Your task to perform on an android device: see sites visited before in the chrome app Image 0: 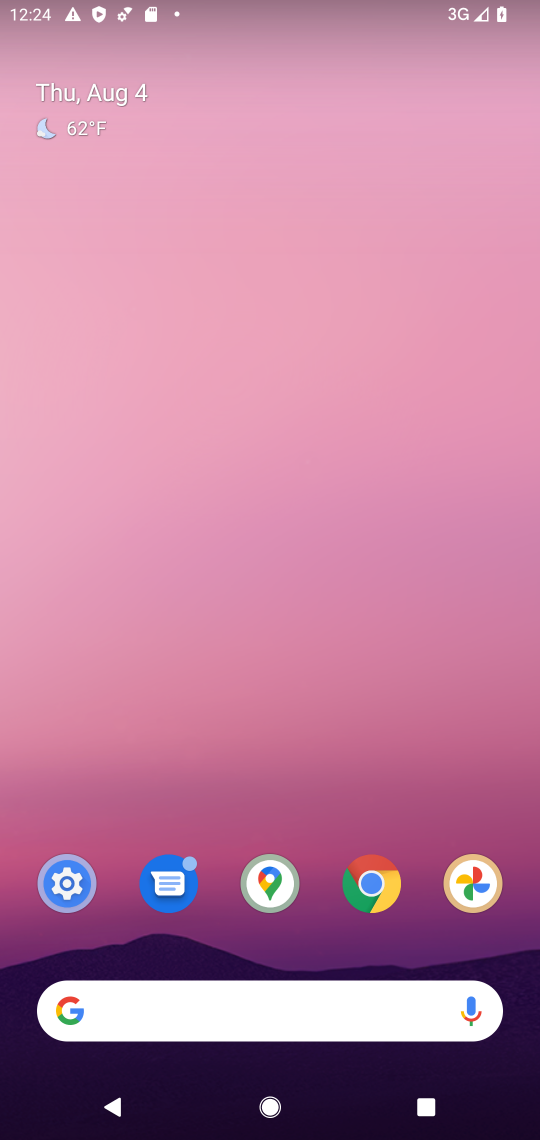
Step 0: drag from (326, 962) to (296, 310)
Your task to perform on an android device: see sites visited before in the chrome app Image 1: 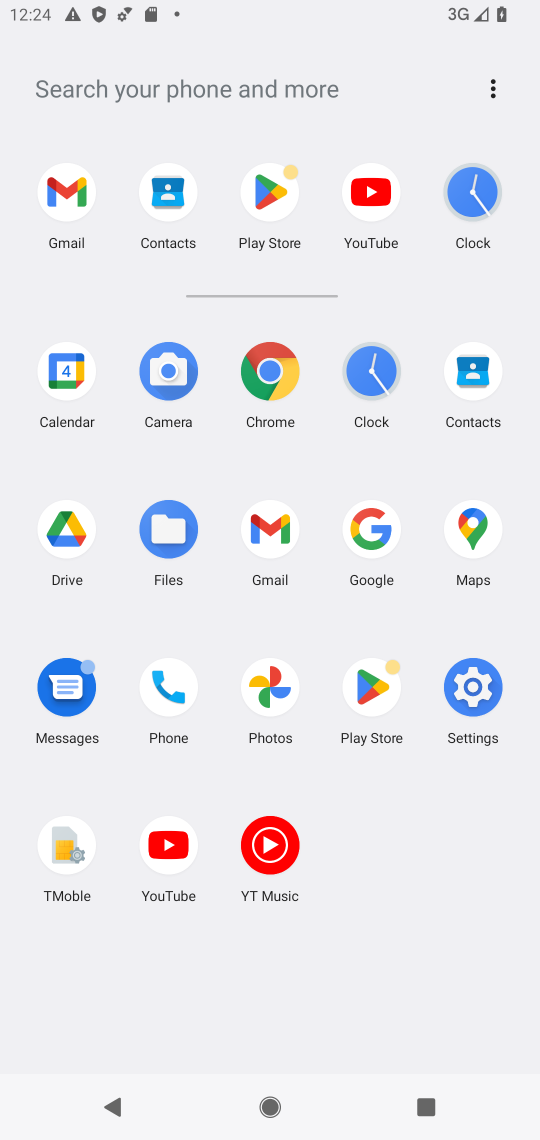
Step 1: click (280, 369)
Your task to perform on an android device: see sites visited before in the chrome app Image 2: 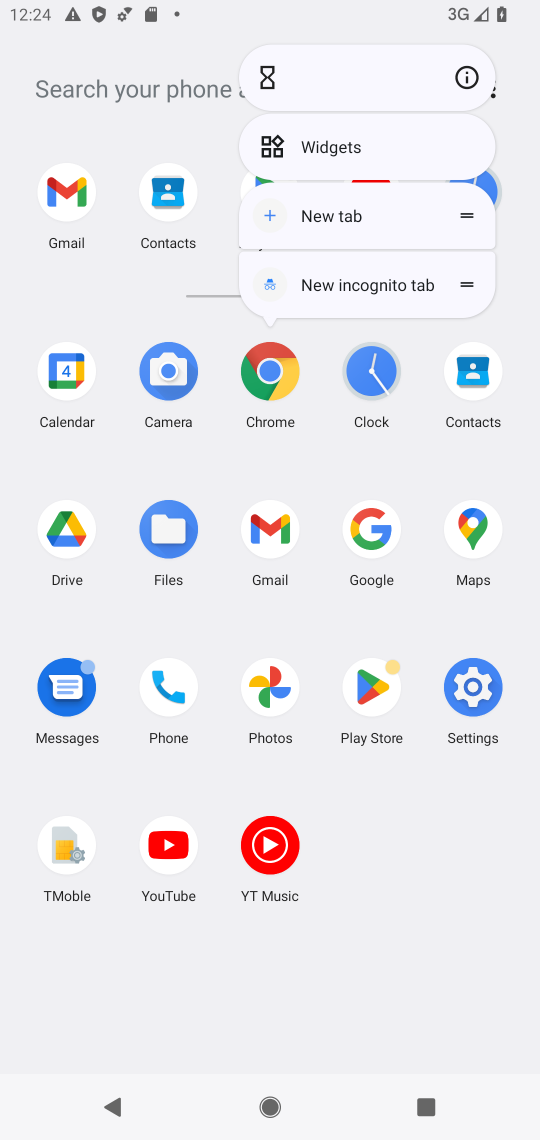
Step 2: click (463, 68)
Your task to perform on an android device: see sites visited before in the chrome app Image 3: 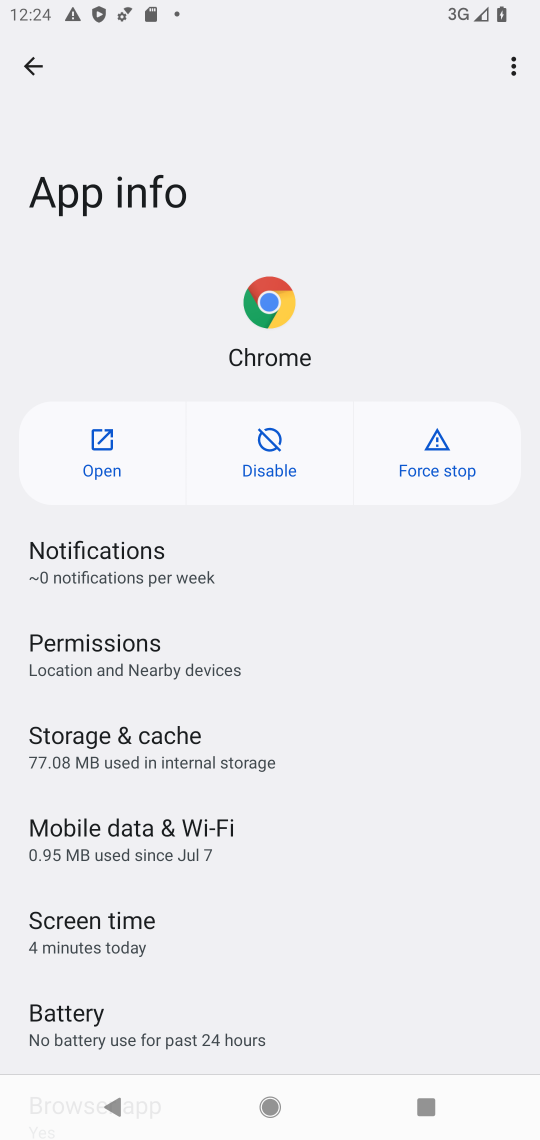
Step 3: click (89, 438)
Your task to perform on an android device: see sites visited before in the chrome app Image 4: 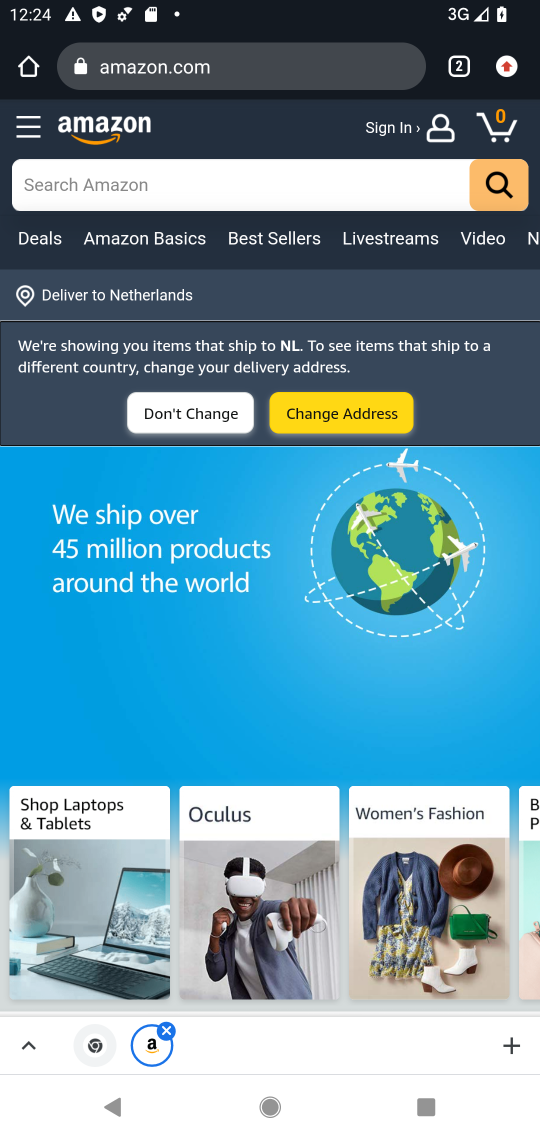
Step 4: task complete